Your task to perform on an android device: allow cookies in the chrome app Image 0: 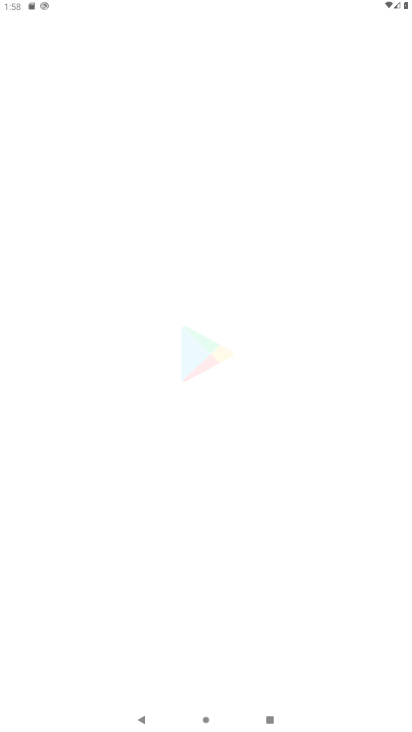
Step 0: press home button
Your task to perform on an android device: allow cookies in the chrome app Image 1: 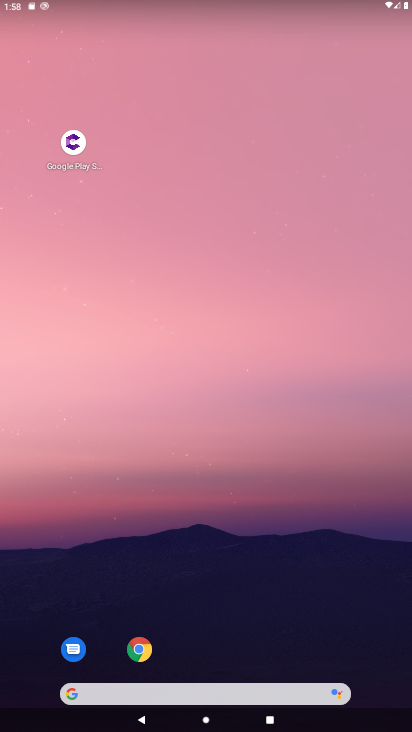
Step 1: drag from (329, 648) to (348, 351)
Your task to perform on an android device: allow cookies in the chrome app Image 2: 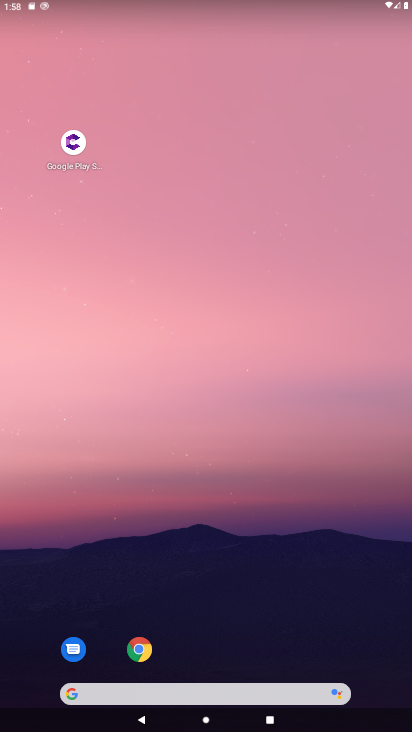
Step 2: drag from (225, 647) to (225, 53)
Your task to perform on an android device: allow cookies in the chrome app Image 3: 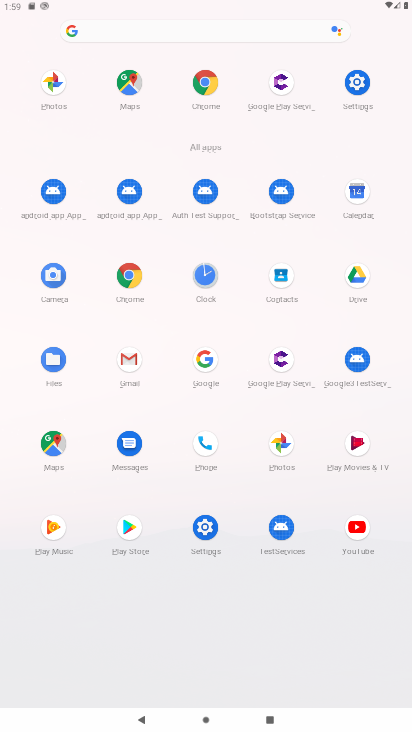
Step 3: click (116, 278)
Your task to perform on an android device: allow cookies in the chrome app Image 4: 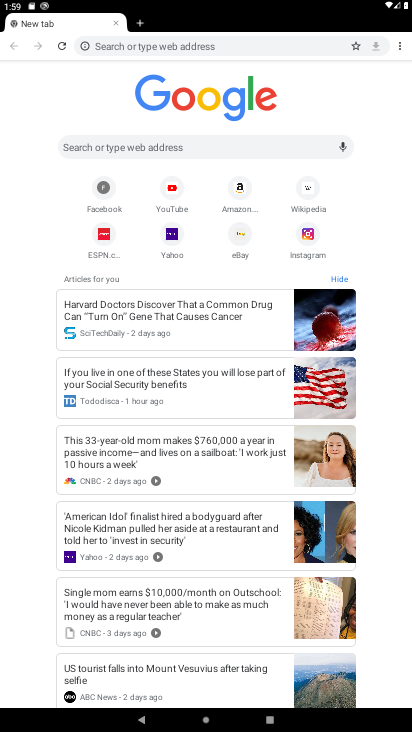
Step 4: drag from (405, 45) to (324, 203)
Your task to perform on an android device: allow cookies in the chrome app Image 5: 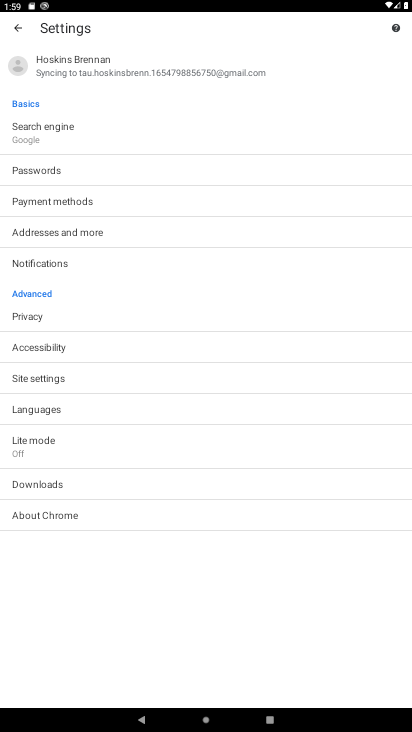
Step 5: click (44, 376)
Your task to perform on an android device: allow cookies in the chrome app Image 6: 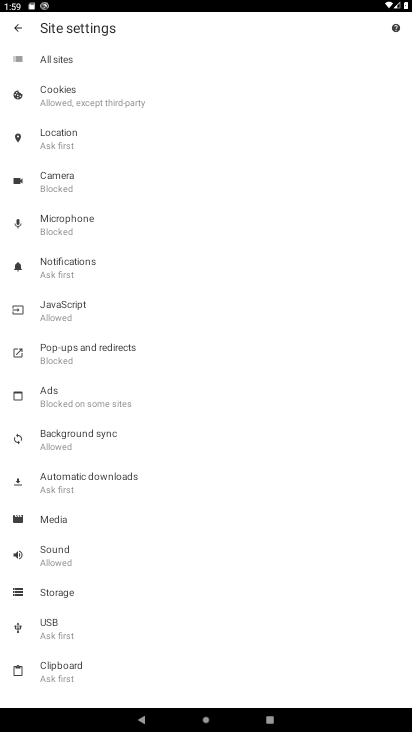
Step 6: click (119, 107)
Your task to perform on an android device: allow cookies in the chrome app Image 7: 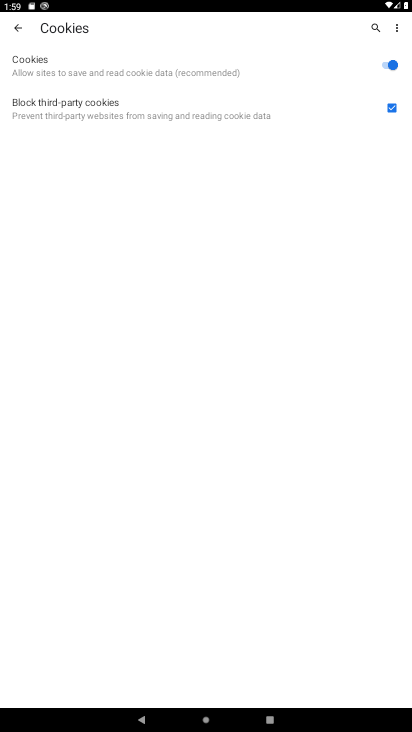
Step 7: task complete